Your task to perform on an android device: read, delete, or share a saved page in the chrome app Image 0: 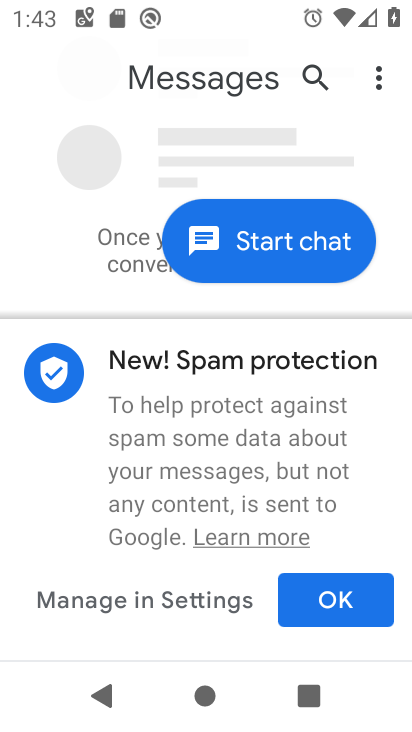
Step 0: press home button
Your task to perform on an android device: read, delete, or share a saved page in the chrome app Image 1: 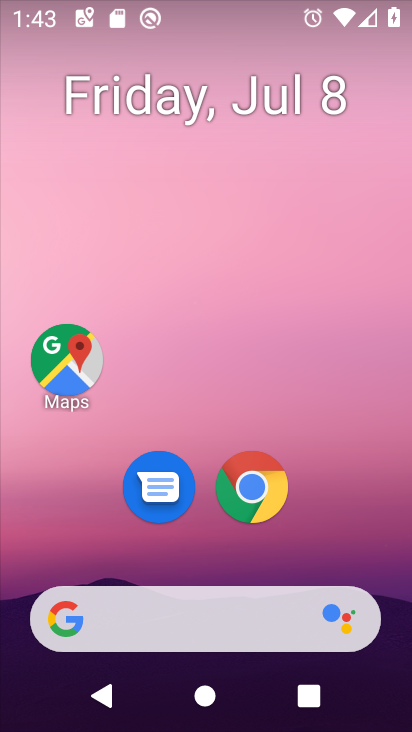
Step 1: drag from (327, 552) to (369, 165)
Your task to perform on an android device: read, delete, or share a saved page in the chrome app Image 2: 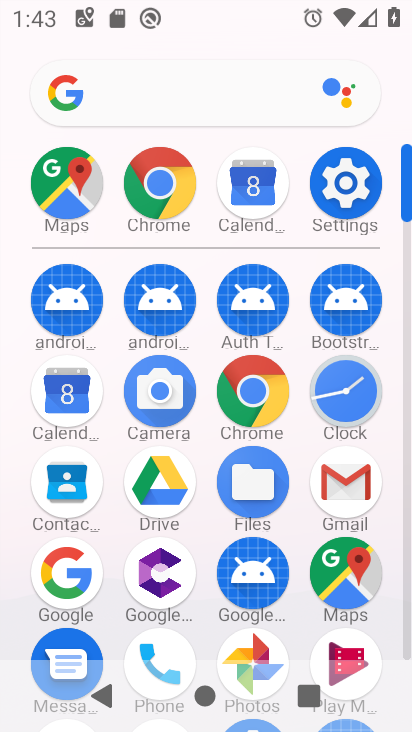
Step 2: click (270, 377)
Your task to perform on an android device: read, delete, or share a saved page in the chrome app Image 3: 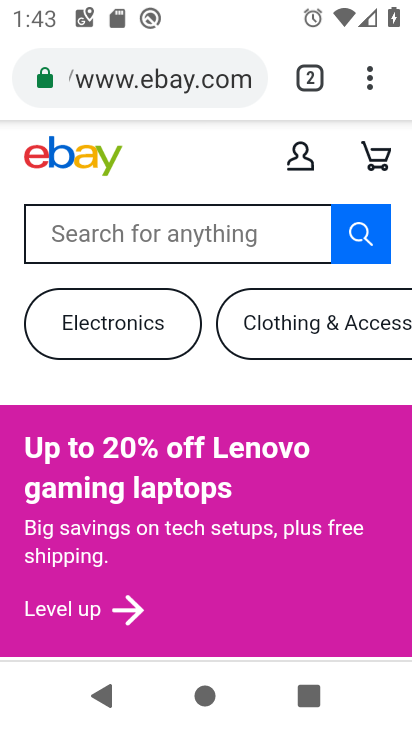
Step 3: click (371, 90)
Your task to perform on an android device: read, delete, or share a saved page in the chrome app Image 4: 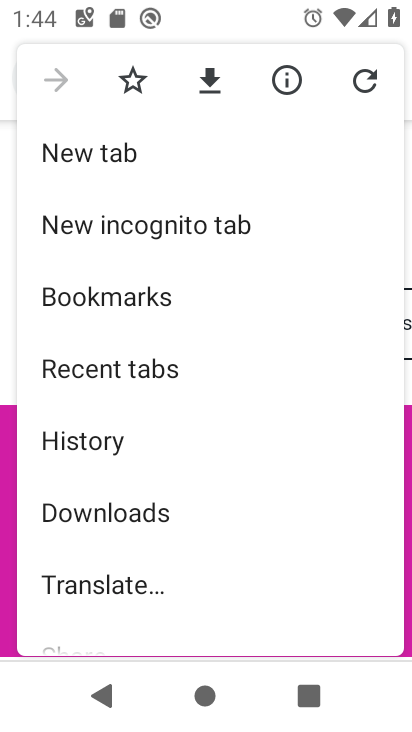
Step 4: click (146, 511)
Your task to perform on an android device: read, delete, or share a saved page in the chrome app Image 5: 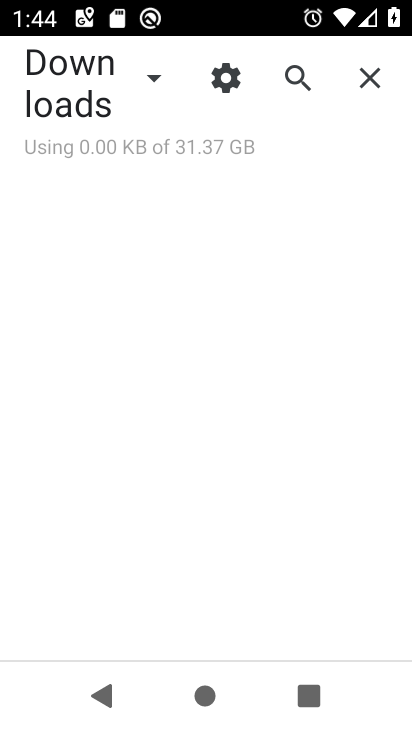
Step 5: click (152, 73)
Your task to perform on an android device: read, delete, or share a saved page in the chrome app Image 6: 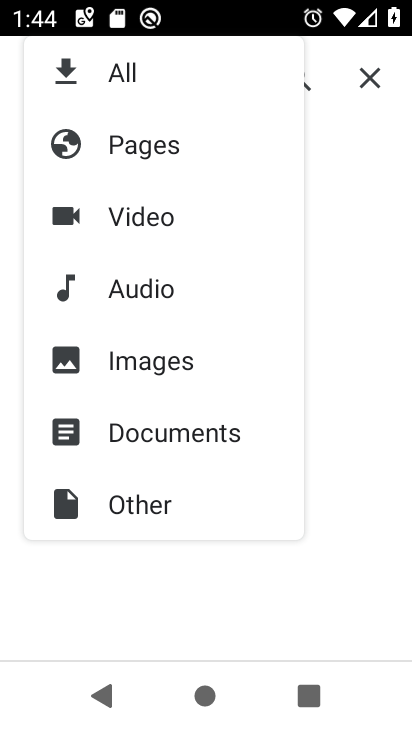
Step 6: click (139, 145)
Your task to perform on an android device: read, delete, or share a saved page in the chrome app Image 7: 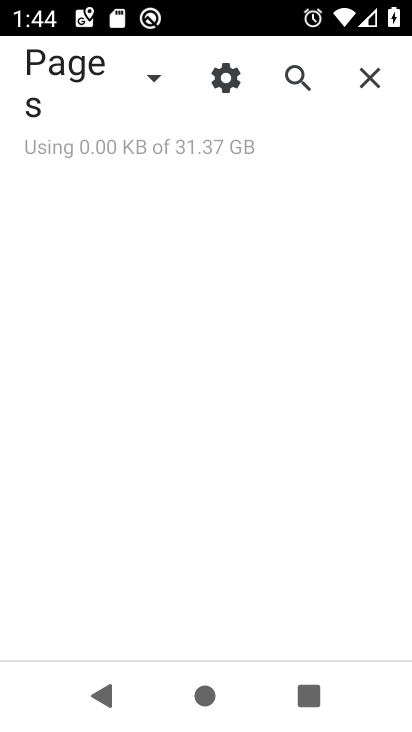
Step 7: task complete